Your task to perform on an android device: Open Youtube and go to "Your channel" Image 0: 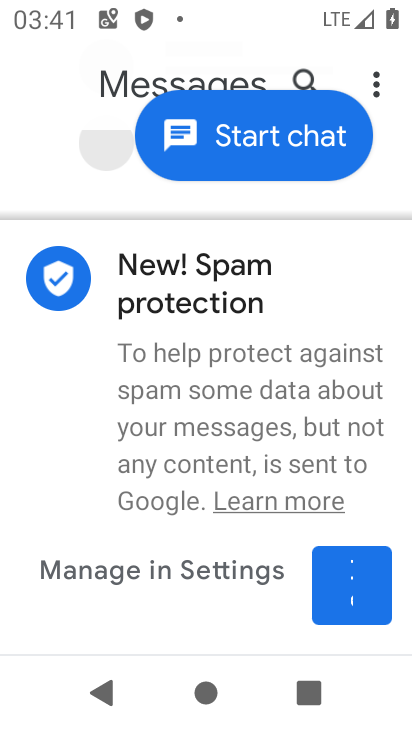
Step 0: press home button
Your task to perform on an android device: Open Youtube and go to "Your channel" Image 1: 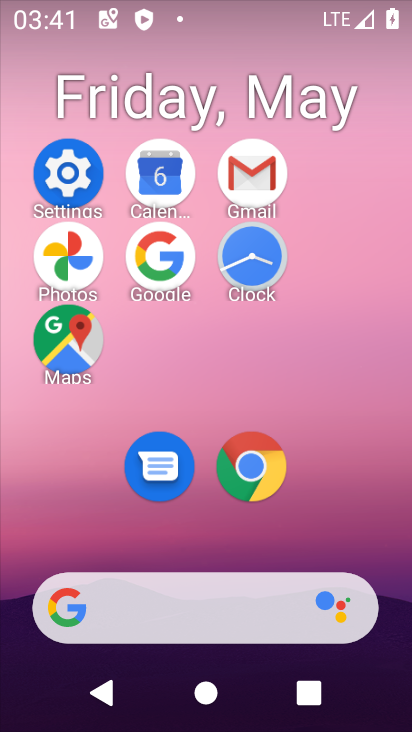
Step 1: drag from (253, 423) to (293, 114)
Your task to perform on an android device: Open Youtube and go to "Your channel" Image 2: 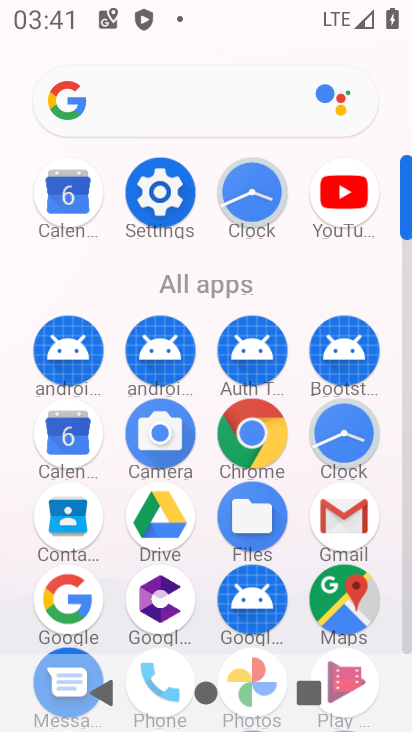
Step 2: click (361, 190)
Your task to perform on an android device: Open Youtube and go to "Your channel" Image 3: 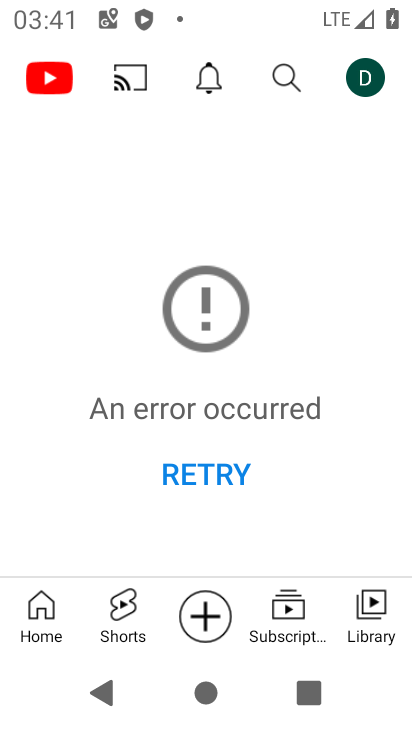
Step 3: click (371, 84)
Your task to perform on an android device: Open Youtube and go to "Your channel" Image 4: 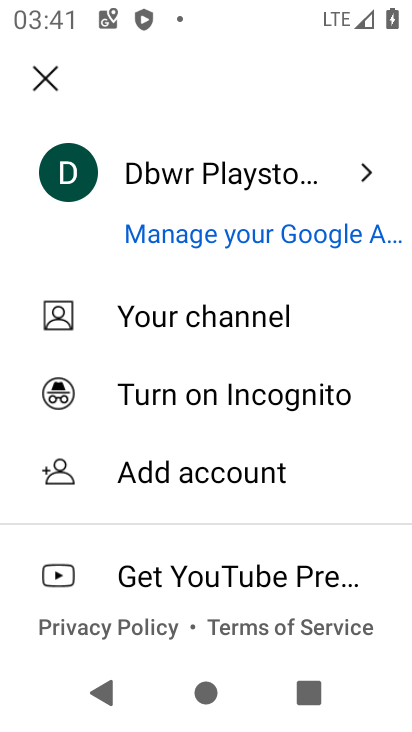
Step 4: click (265, 315)
Your task to perform on an android device: Open Youtube and go to "Your channel" Image 5: 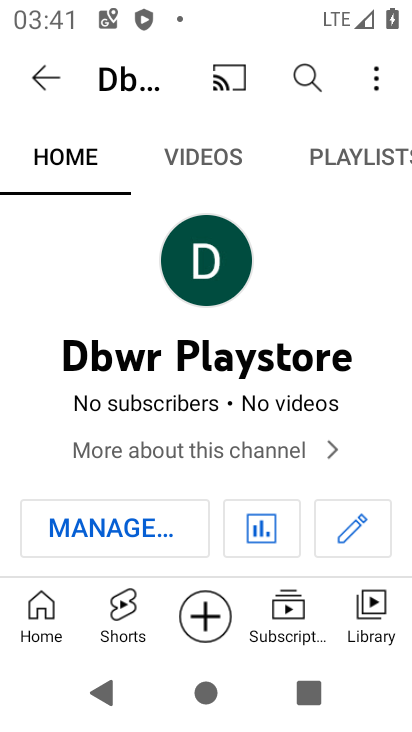
Step 5: task complete